Your task to perform on an android device: Is it going to rain this weekend? Image 0: 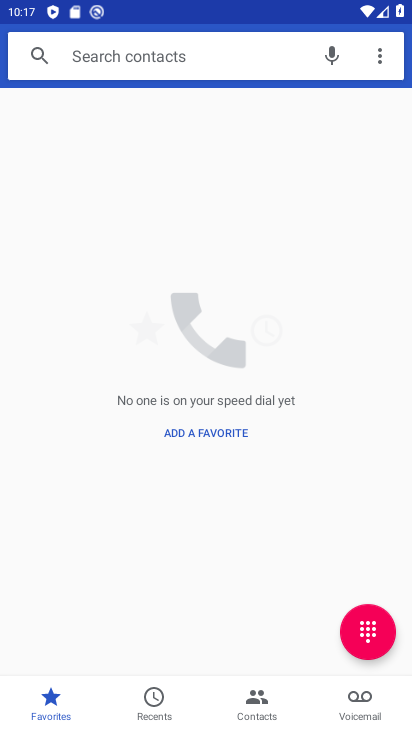
Step 0: press home button
Your task to perform on an android device: Is it going to rain this weekend? Image 1: 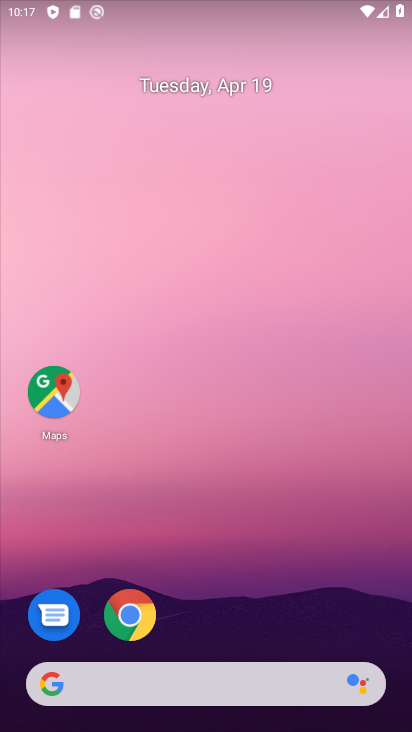
Step 1: drag from (244, 602) to (266, 41)
Your task to perform on an android device: Is it going to rain this weekend? Image 2: 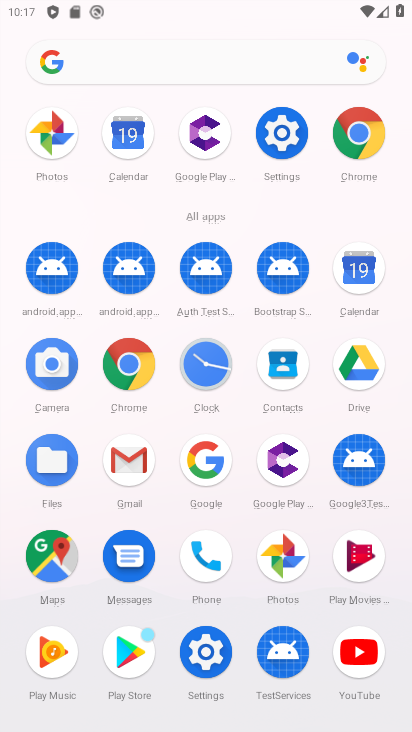
Step 2: click (205, 459)
Your task to perform on an android device: Is it going to rain this weekend? Image 3: 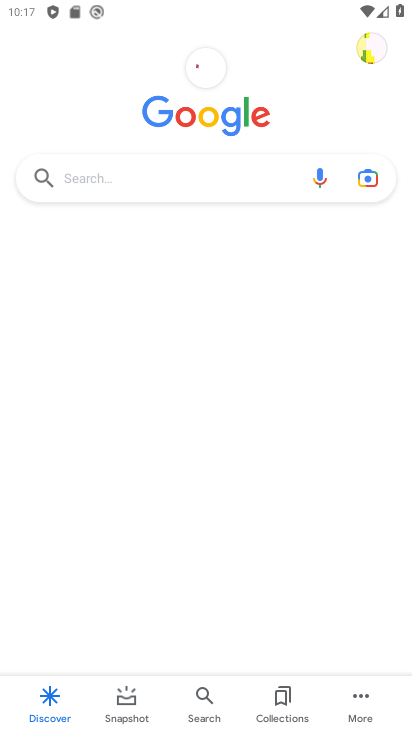
Step 3: click (167, 178)
Your task to perform on an android device: Is it going to rain this weekend? Image 4: 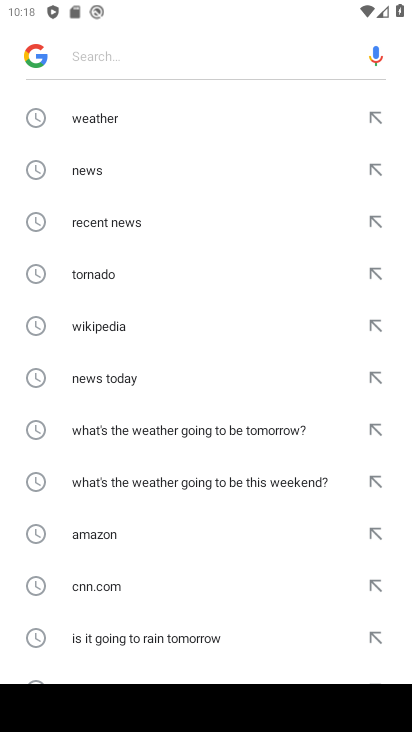
Step 4: type "is it going to rain this weekend"
Your task to perform on an android device: Is it going to rain this weekend? Image 5: 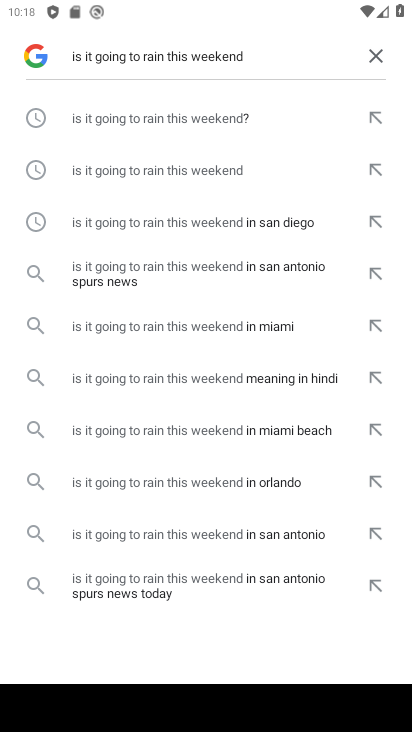
Step 5: click (174, 121)
Your task to perform on an android device: Is it going to rain this weekend? Image 6: 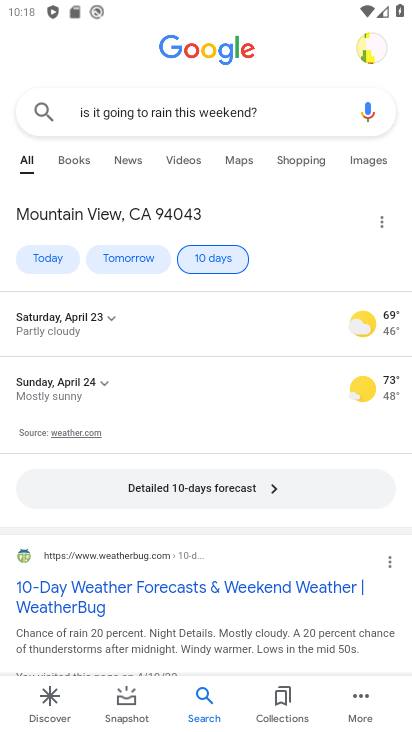
Step 6: task complete